Your task to perform on an android device: turn off translation in the chrome app Image 0: 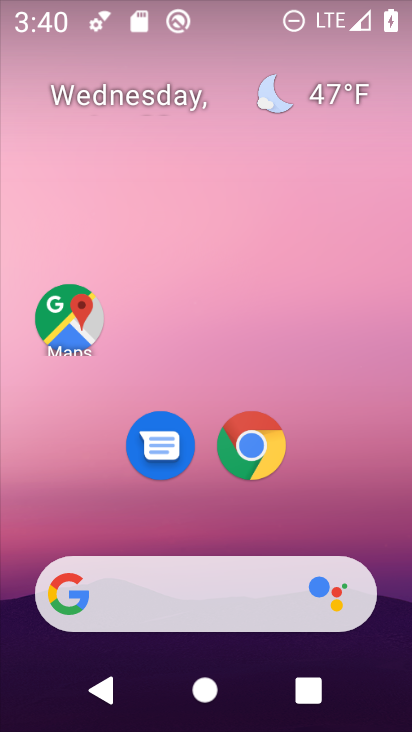
Step 0: click (252, 446)
Your task to perform on an android device: turn off translation in the chrome app Image 1: 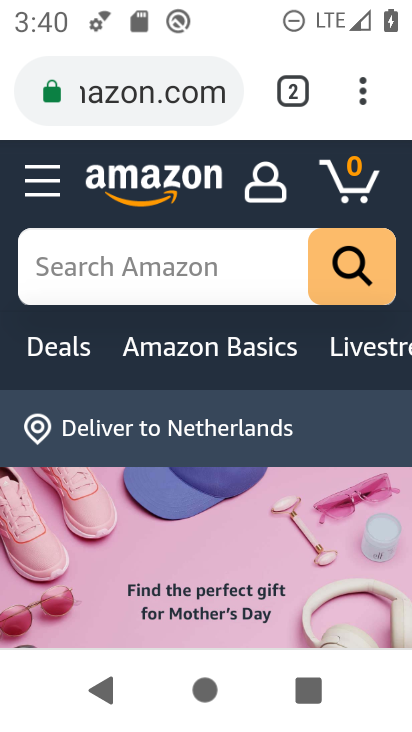
Step 1: click (363, 96)
Your task to perform on an android device: turn off translation in the chrome app Image 2: 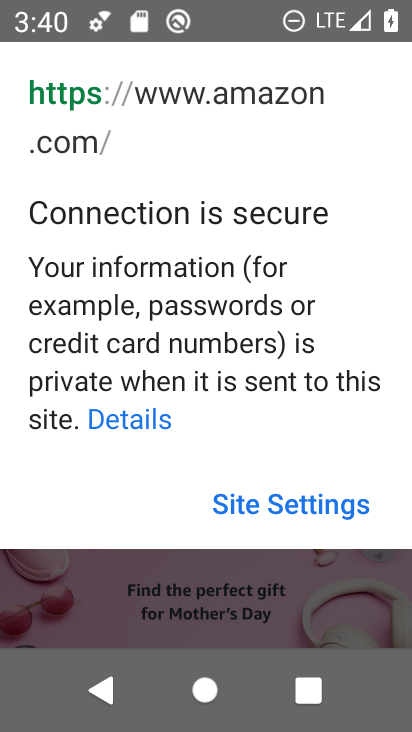
Step 2: press back button
Your task to perform on an android device: turn off translation in the chrome app Image 3: 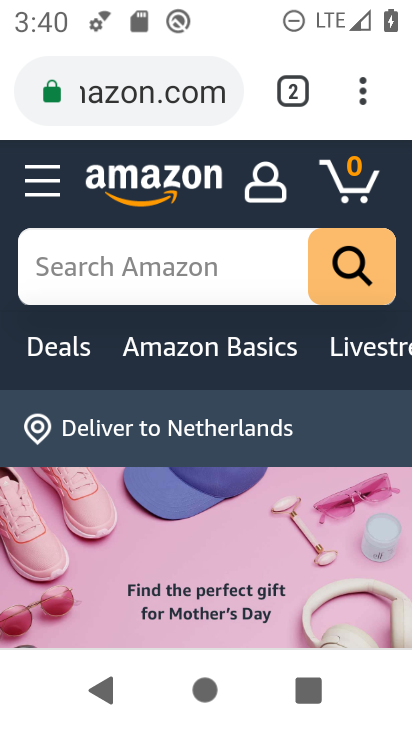
Step 3: click (365, 83)
Your task to perform on an android device: turn off translation in the chrome app Image 4: 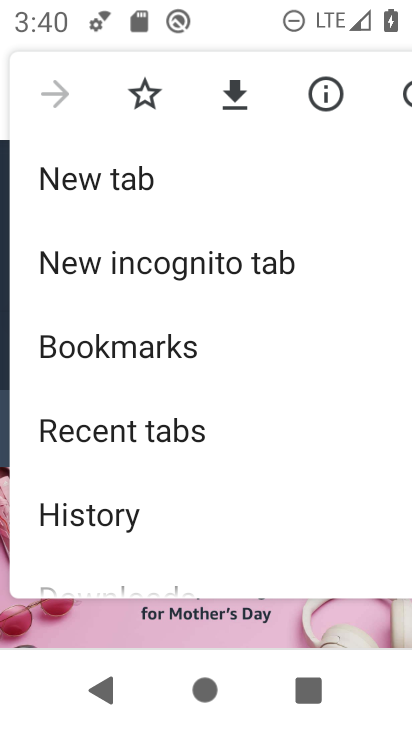
Step 4: drag from (203, 481) to (258, 319)
Your task to perform on an android device: turn off translation in the chrome app Image 5: 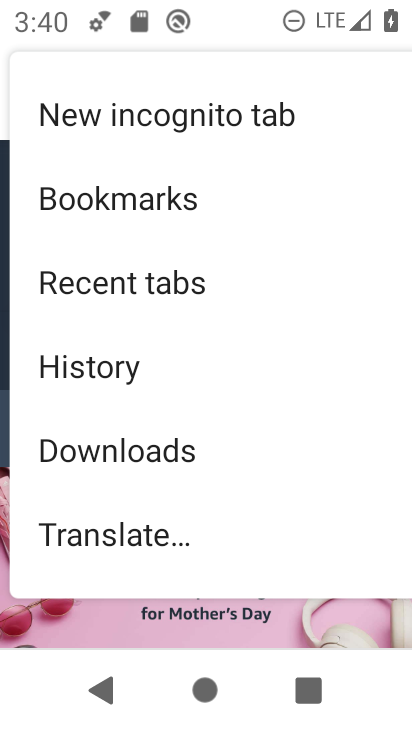
Step 5: drag from (205, 399) to (223, 293)
Your task to perform on an android device: turn off translation in the chrome app Image 6: 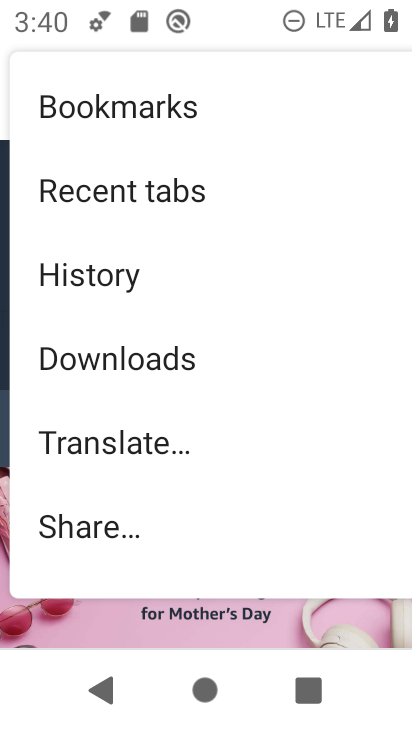
Step 6: drag from (195, 423) to (197, 327)
Your task to perform on an android device: turn off translation in the chrome app Image 7: 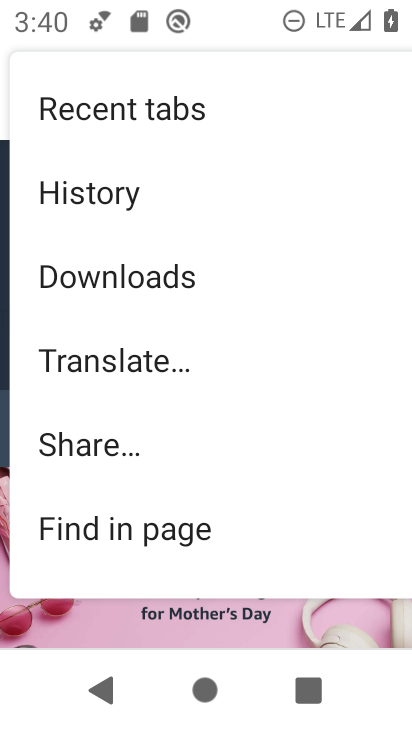
Step 7: drag from (193, 441) to (220, 327)
Your task to perform on an android device: turn off translation in the chrome app Image 8: 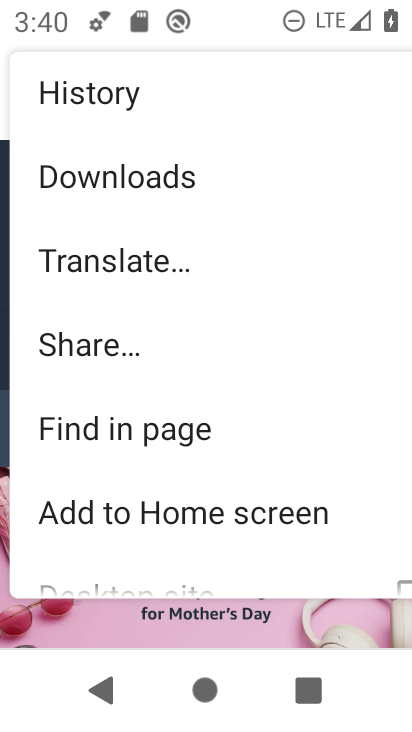
Step 8: drag from (230, 445) to (241, 359)
Your task to perform on an android device: turn off translation in the chrome app Image 9: 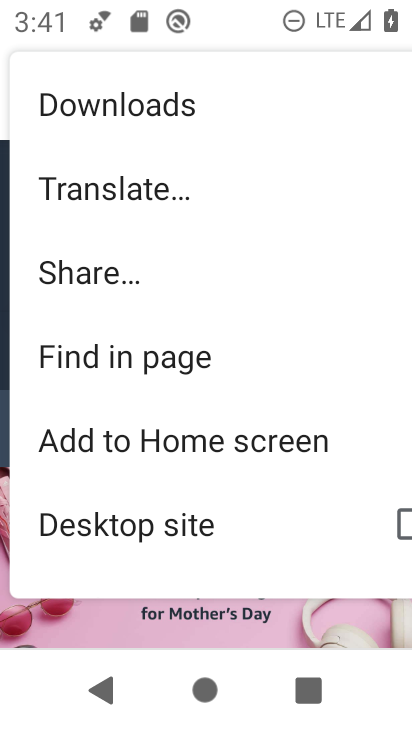
Step 9: drag from (232, 472) to (251, 358)
Your task to perform on an android device: turn off translation in the chrome app Image 10: 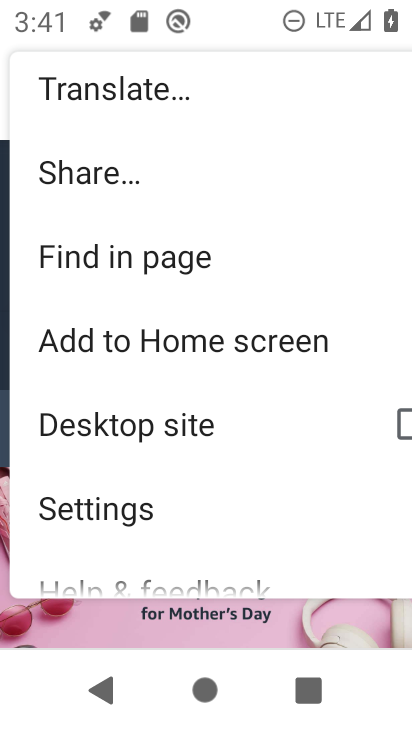
Step 10: drag from (213, 485) to (281, 362)
Your task to perform on an android device: turn off translation in the chrome app Image 11: 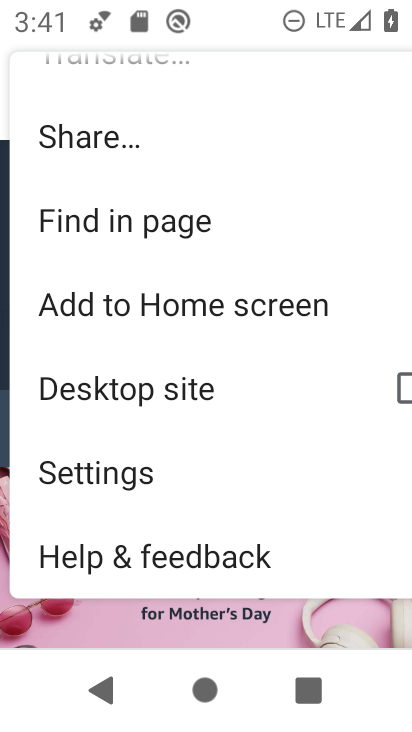
Step 11: click (89, 481)
Your task to perform on an android device: turn off translation in the chrome app Image 12: 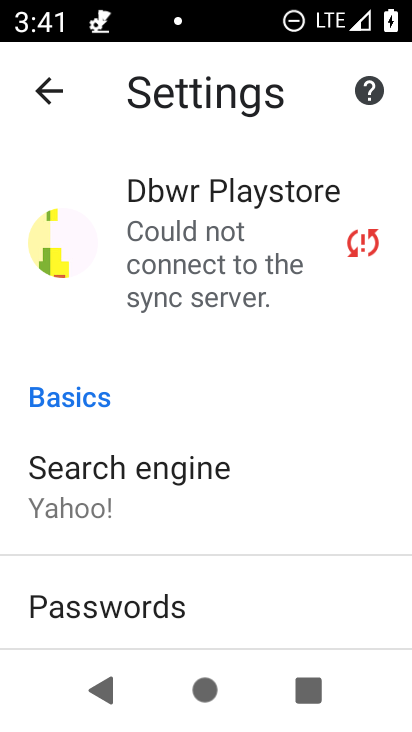
Step 12: drag from (197, 561) to (233, 441)
Your task to perform on an android device: turn off translation in the chrome app Image 13: 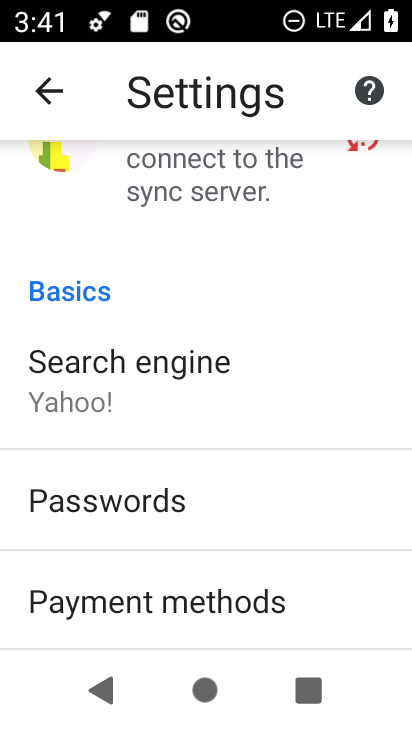
Step 13: drag from (226, 548) to (236, 436)
Your task to perform on an android device: turn off translation in the chrome app Image 14: 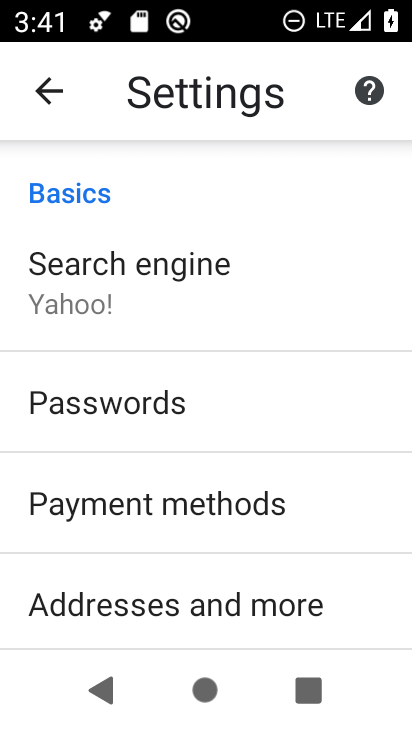
Step 14: drag from (212, 579) to (255, 424)
Your task to perform on an android device: turn off translation in the chrome app Image 15: 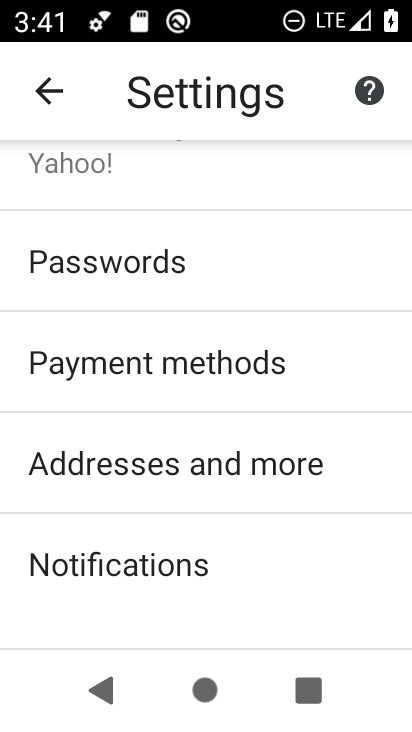
Step 15: drag from (220, 582) to (285, 344)
Your task to perform on an android device: turn off translation in the chrome app Image 16: 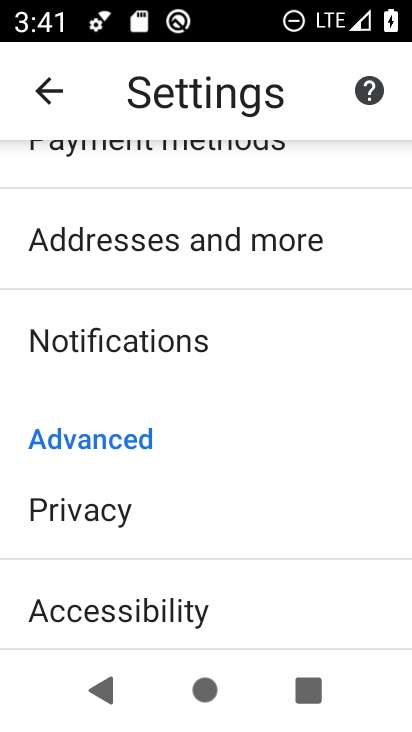
Step 16: drag from (190, 561) to (241, 438)
Your task to perform on an android device: turn off translation in the chrome app Image 17: 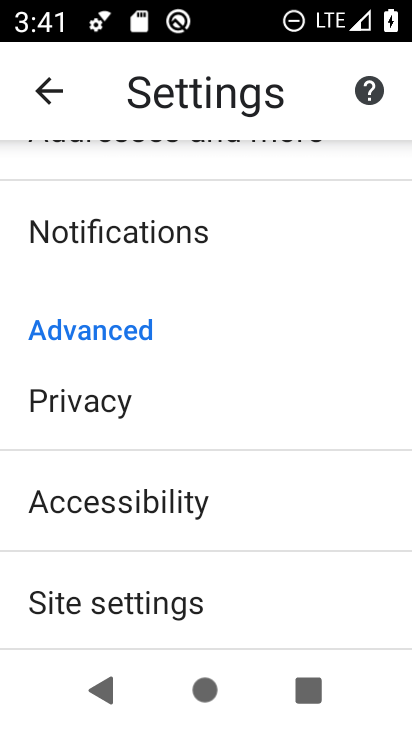
Step 17: drag from (188, 579) to (260, 447)
Your task to perform on an android device: turn off translation in the chrome app Image 18: 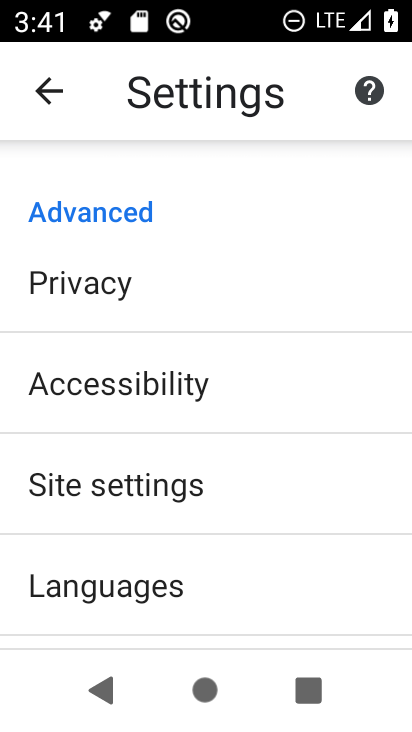
Step 18: drag from (190, 547) to (226, 393)
Your task to perform on an android device: turn off translation in the chrome app Image 19: 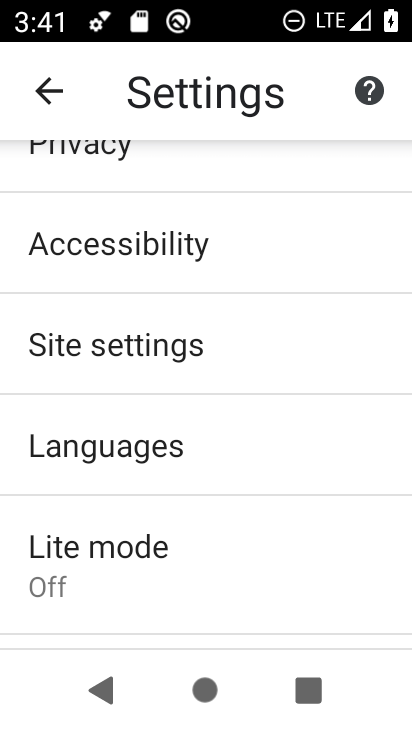
Step 19: click (170, 449)
Your task to perform on an android device: turn off translation in the chrome app Image 20: 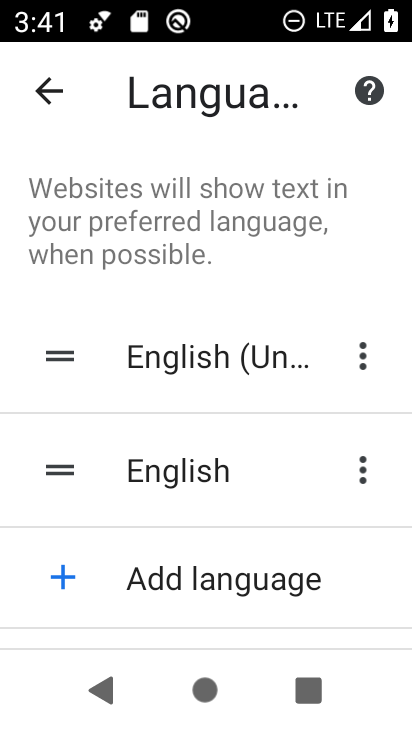
Step 20: drag from (238, 559) to (314, 339)
Your task to perform on an android device: turn off translation in the chrome app Image 21: 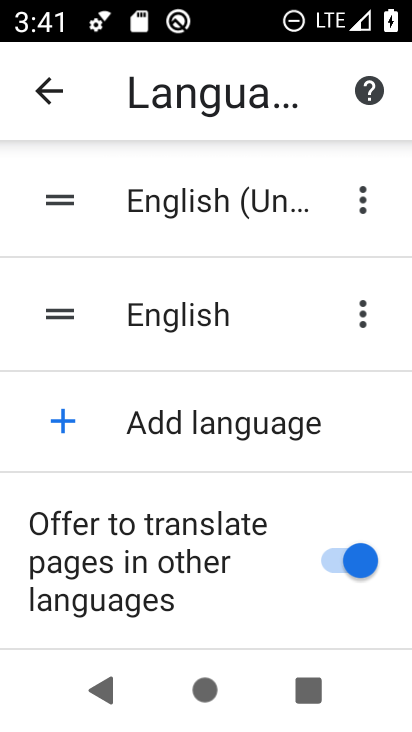
Step 21: click (363, 555)
Your task to perform on an android device: turn off translation in the chrome app Image 22: 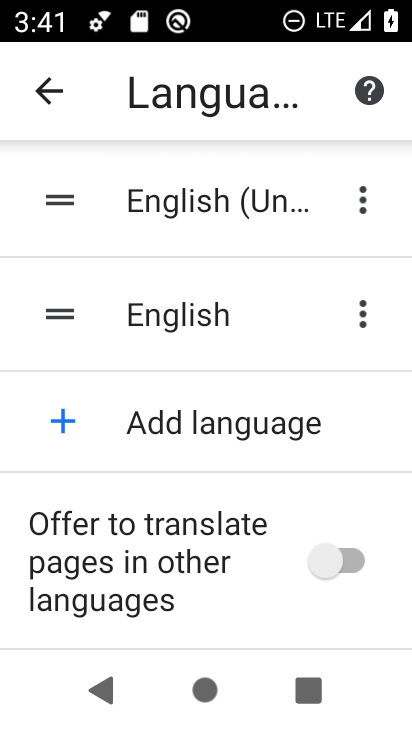
Step 22: task complete